Your task to perform on an android device: find which apps use the phone's location Image 0: 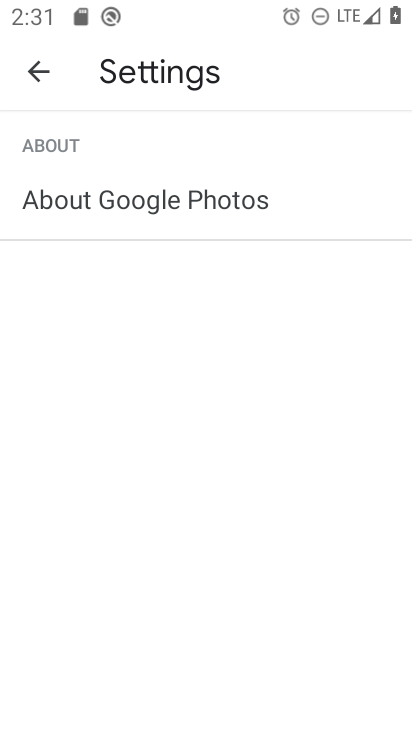
Step 0: press home button
Your task to perform on an android device: find which apps use the phone's location Image 1: 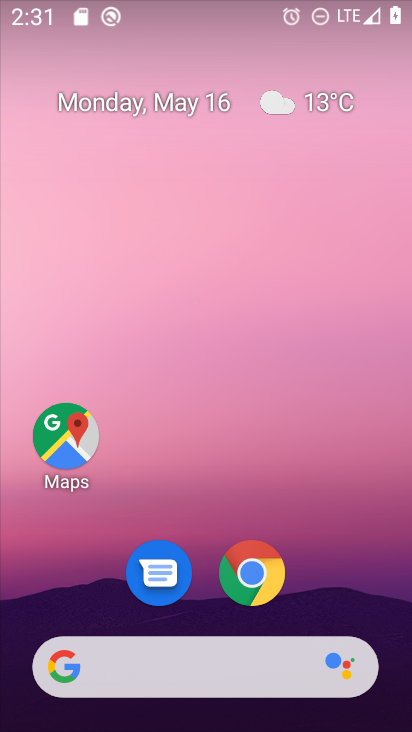
Step 1: drag from (173, 667) to (177, 220)
Your task to perform on an android device: find which apps use the phone's location Image 2: 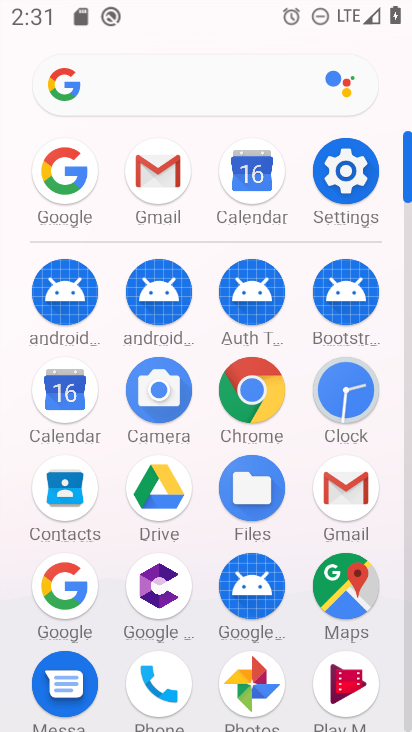
Step 2: click (345, 159)
Your task to perform on an android device: find which apps use the phone's location Image 3: 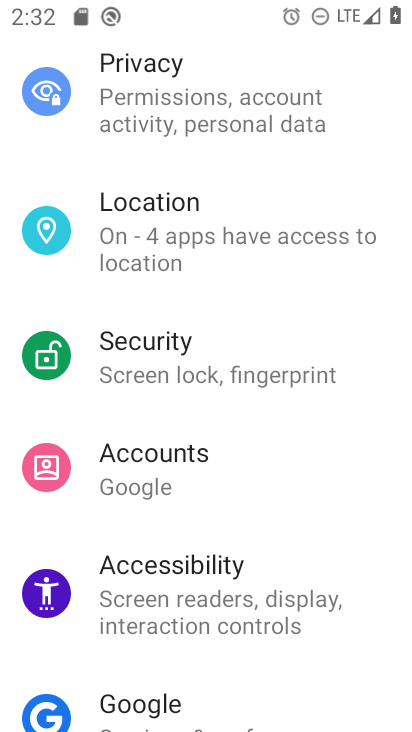
Step 3: click (104, 263)
Your task to perform on an android device: find which apps use the phone's location Image 4: 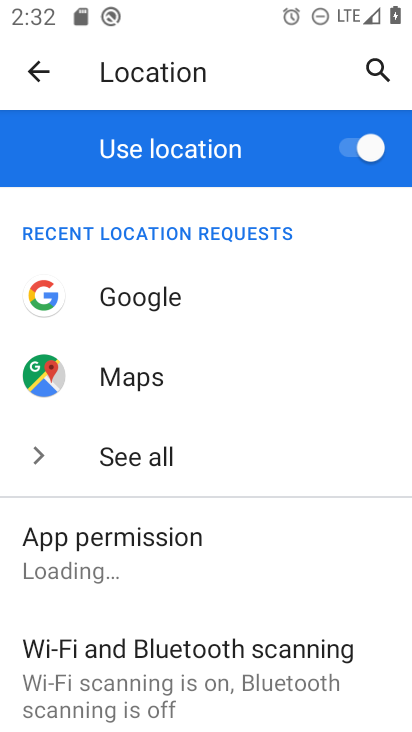
Step 4: click (152, 572)
Your task to perform on an android device: find which apps use the phone's location Image 5: 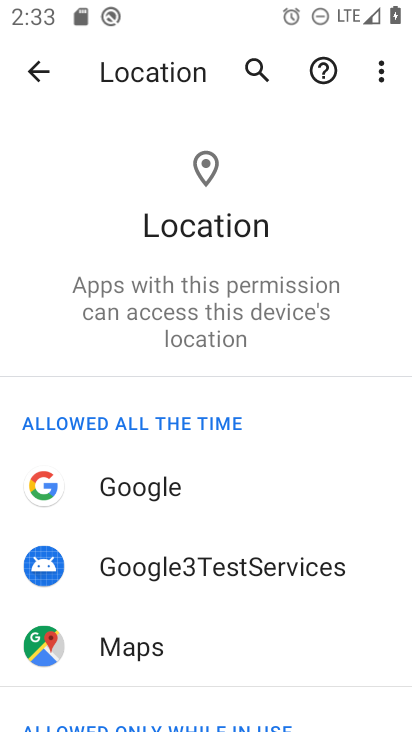
Step 5: task complete